Your task to perform on an android device: turn off improve location accuracy Image 0: 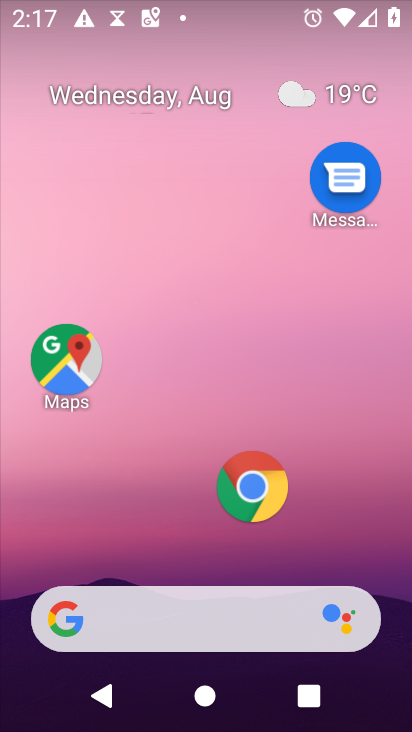
Step 0: drag from (188, 554) to (230, 91)
Your task to perform on an android device: turn off improve location accuracy Image 1: 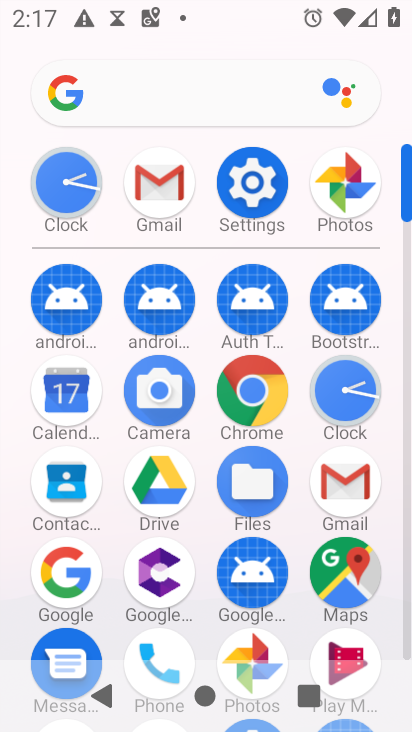
Step 1: click (241, 199)
Your task to perform on an android device: turn off improve location accuracy Image 2: 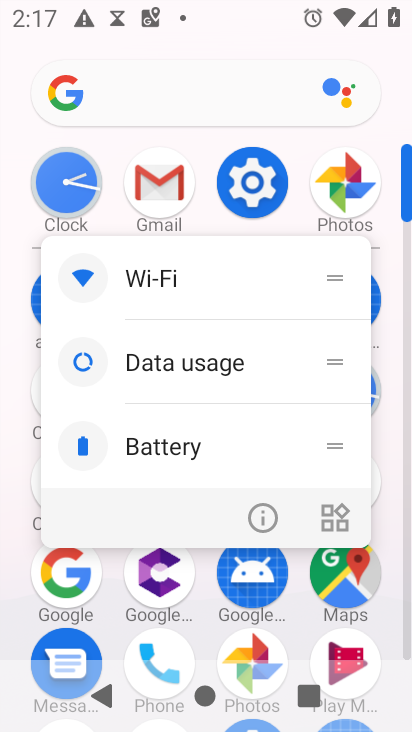
Step 2: click (260, 176)
Your task to perform on an android device: turn off improve location accuracy Image 3: 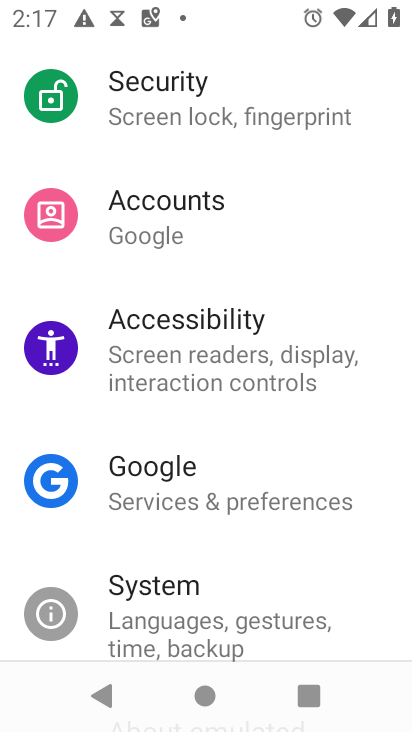
Step 3: drag from (265, 223) to (191, 704)
Your task to perform on an android device: turn off improve location accuracy Image 4: 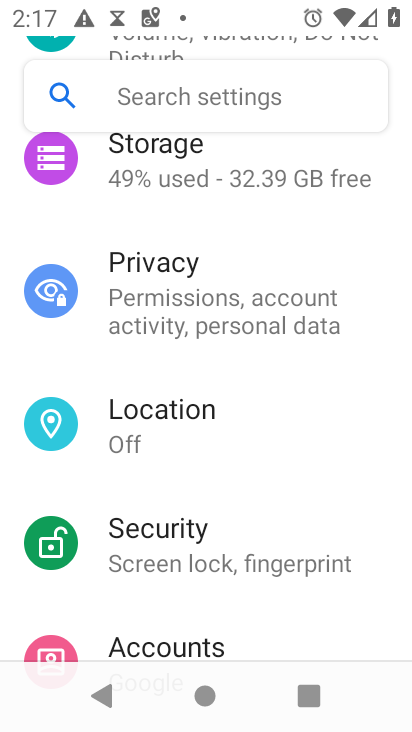
Step 4: click (148, 452)
Your task to perform on an android device: turn off improve location accuracy Image 5: 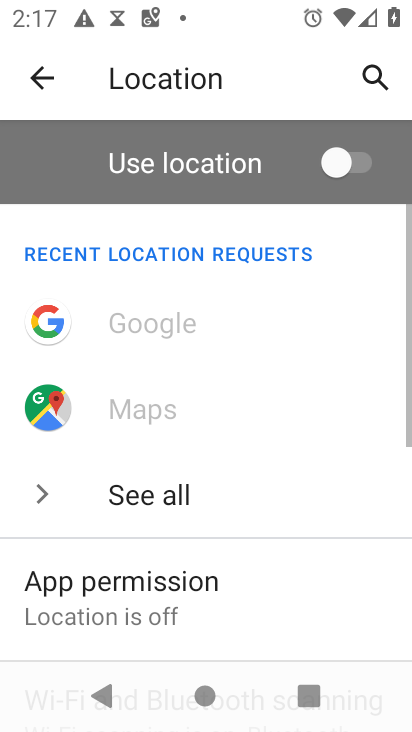
Step 5: drag from (152, 607) to (249, 237)
Your task to perform on an android device: turn off improve location accuracy Image 6: 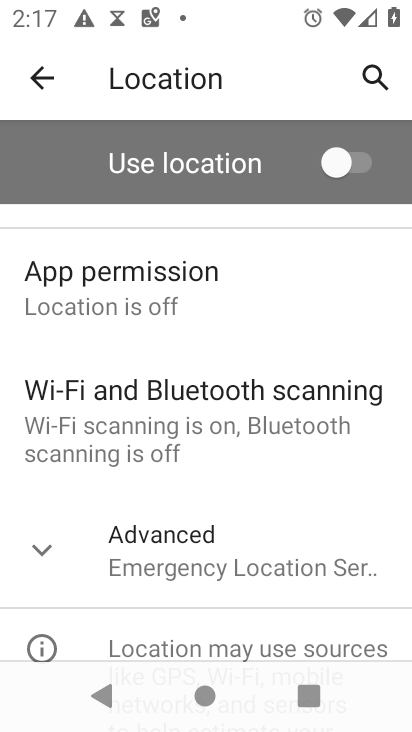
Step 6: click (190, 524)
Your task to perform on an android device: turn off improve location accuracy Image 7: 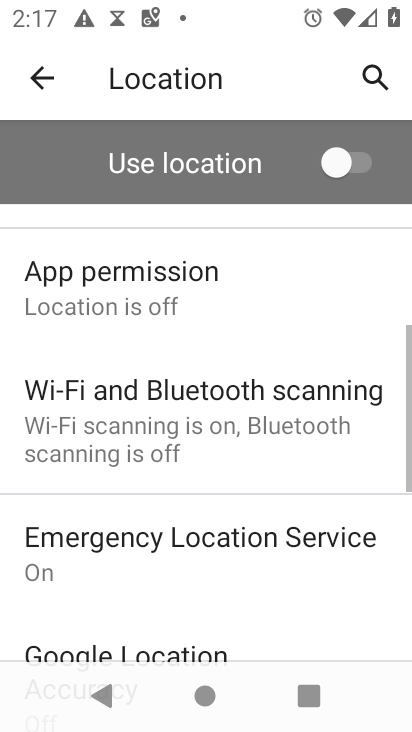
Step 7: drag from (234, 638) to (323, 85)
Your task to perform on an android device: turn off improve location accuracy Image 8: 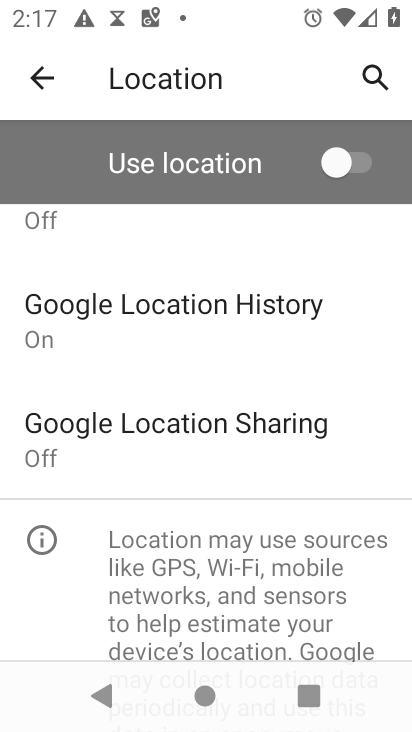
Step 8: drag from (273, 339) to (339, 635)
Your task to perform on an android device: turn off improve location accuracy Image 9: 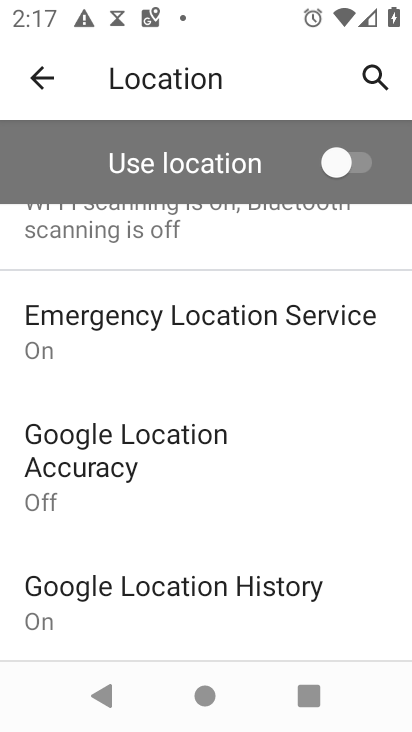
Step 9: click (126, 474)
Your task to perform on an android device: turn off improve location accuracy Image 10: 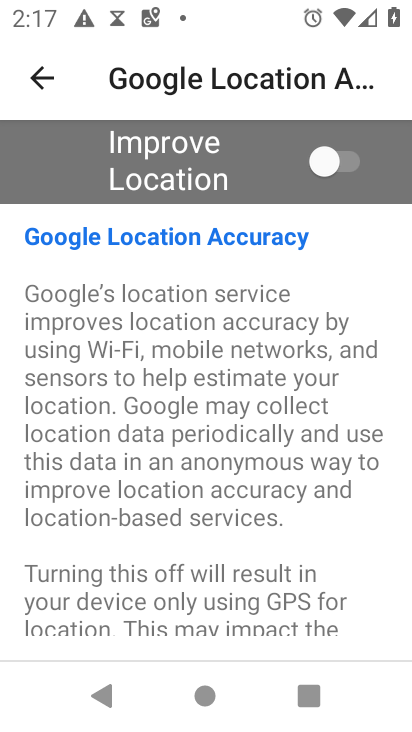
Step 10: task complete